Your task to perform on an android device: turn on showing notifications on the lock screen Image 0: 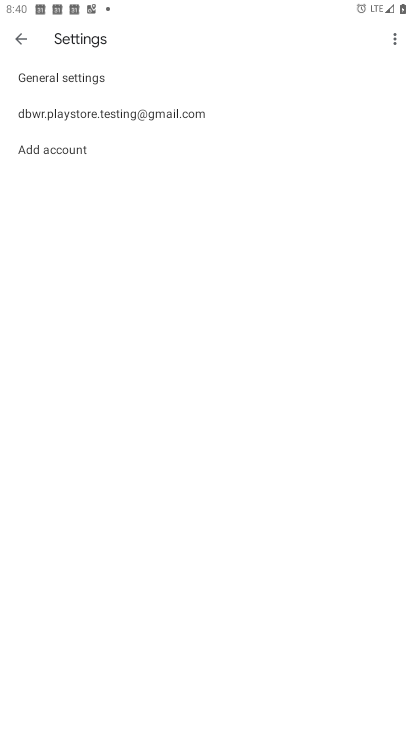
Step 0: press home button
Your task to perform on an android device: turn on showing notifications on the lock screen Image 1: 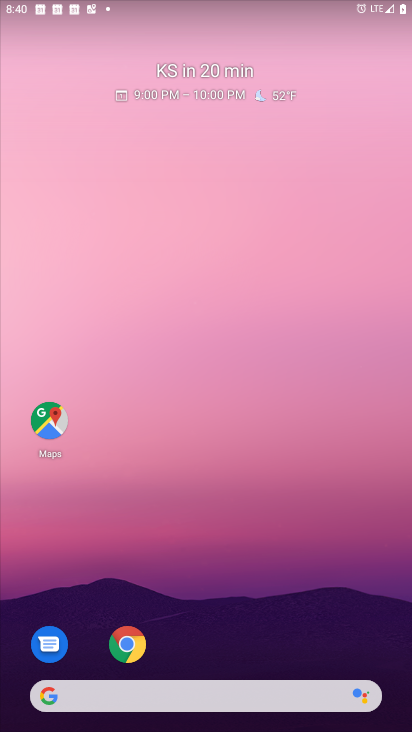
Step 1: drag from (370, 657) to (281, 130)
Your task to perform on an android device: turn on showing notifications on the lock screen Image 2: 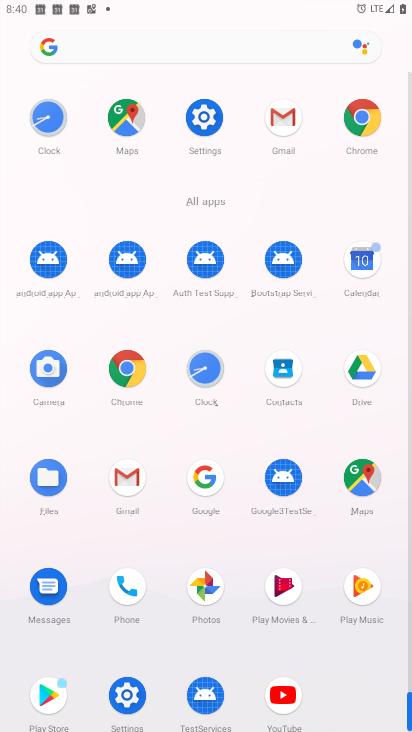
Step 2: click (129, 697)
Your task to perform on an android device: turn on showing notifications on the lock screen Image 3: 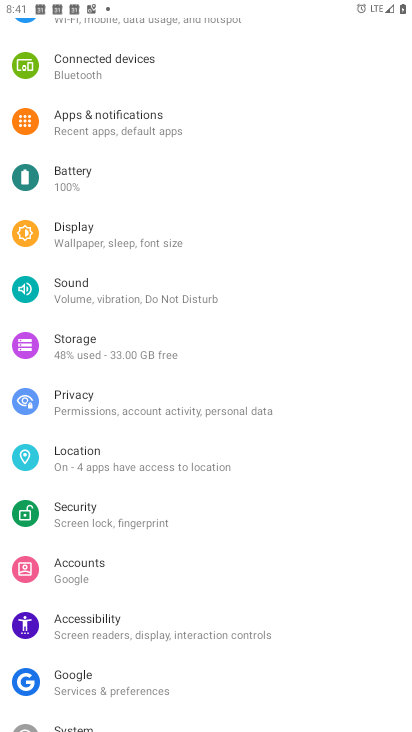
Step 3: click (105, 118)
Your task to perform on an android device: turn on showing notifications on the lock screen Image 4: 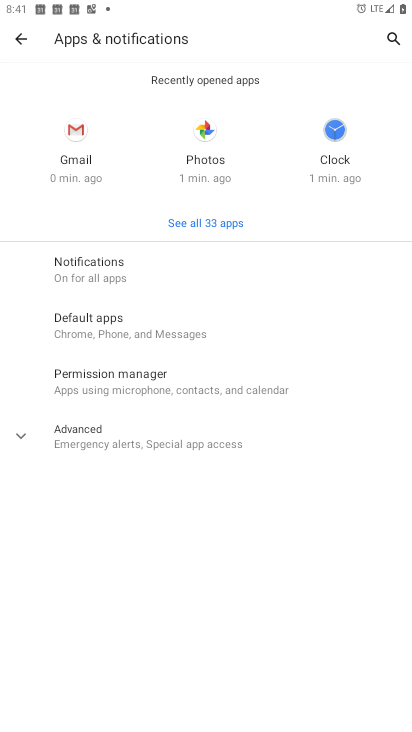
Step 4: click (72, 258)
Your task to perform on an android device: turn on showing notifications on the lock screen Image 5: 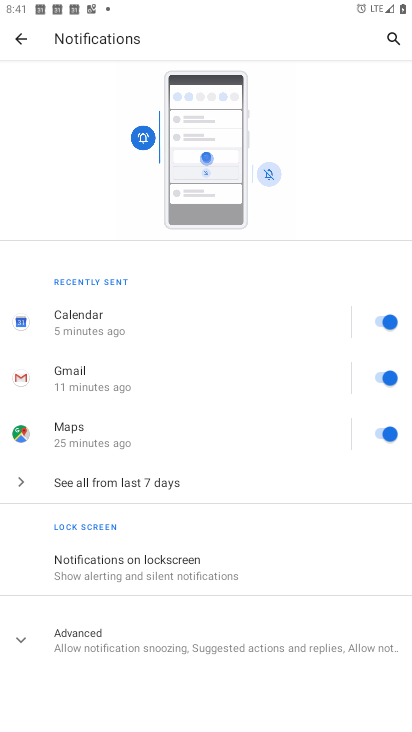
Step 5: click (111, 562)
Your task to perform on an android device: turn on showing notifications on the lock screen Image 6: 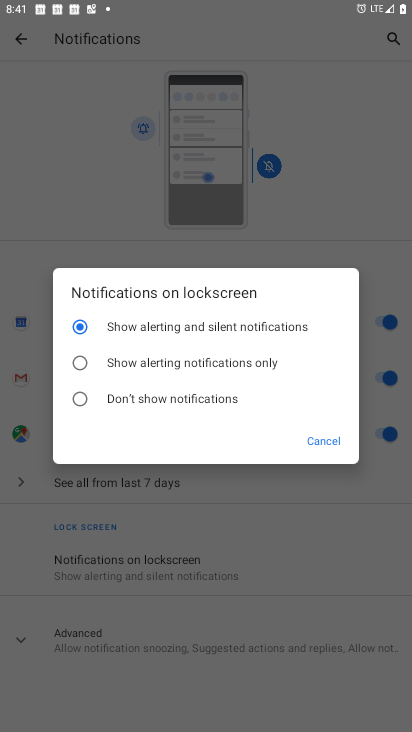
Step 6: task complete